Your task to perform on an android device: check data usage Image 0: 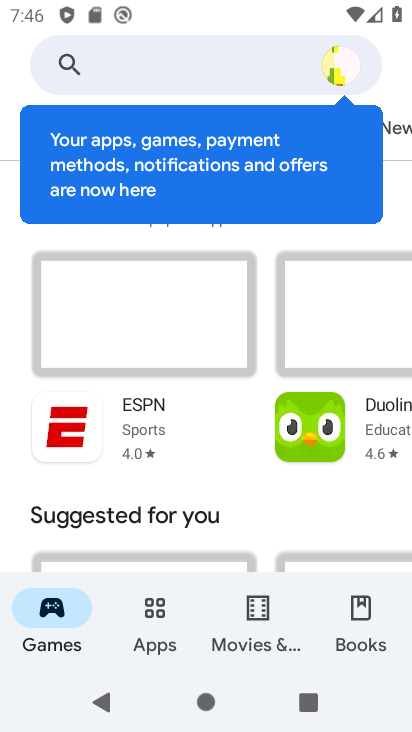
Step 0: press home button
Your task to perform on an android device: check data usage Image 1: 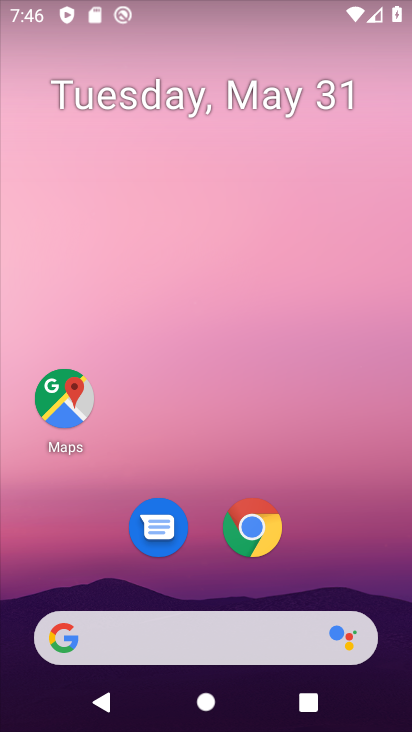
Step 1: drag from (316, 566) to (188, 20)
Your task to perform on an android device: check data usage Image 2: 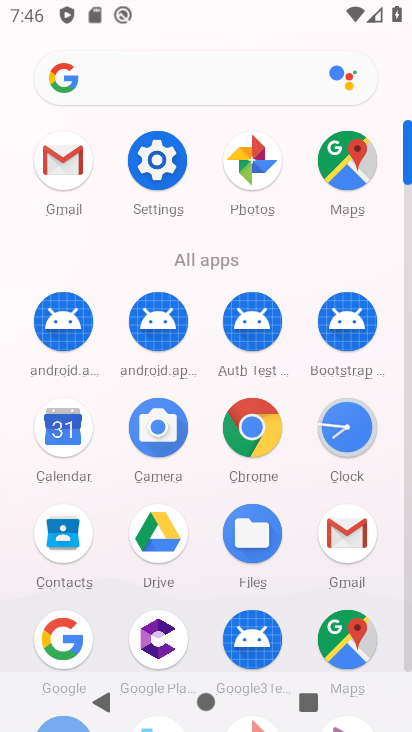
Step 2: click (147, 152)
Your task to perform on an android device: check data usage Image 3: 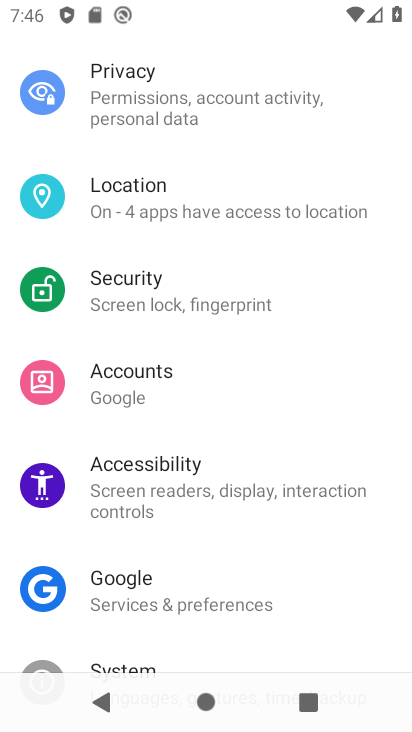
Step 3: drag from (240, 150) to (216, 679)
Your task to perform on an android device: check data usage Image 4: 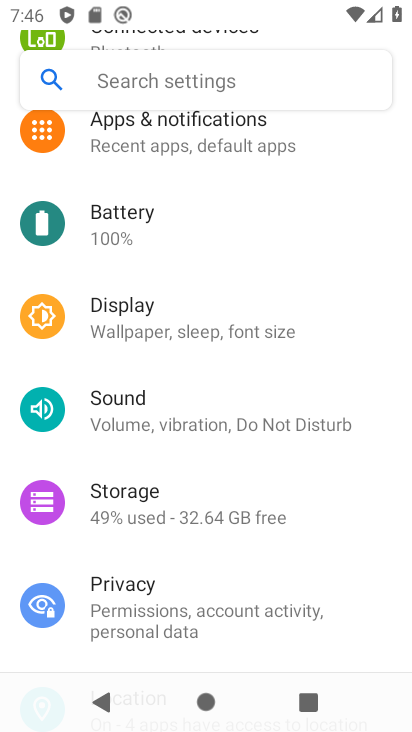
Step 4: drag from (186, 209) to (220, 578)
Your task to perform on an android device: check data usage Image 5: 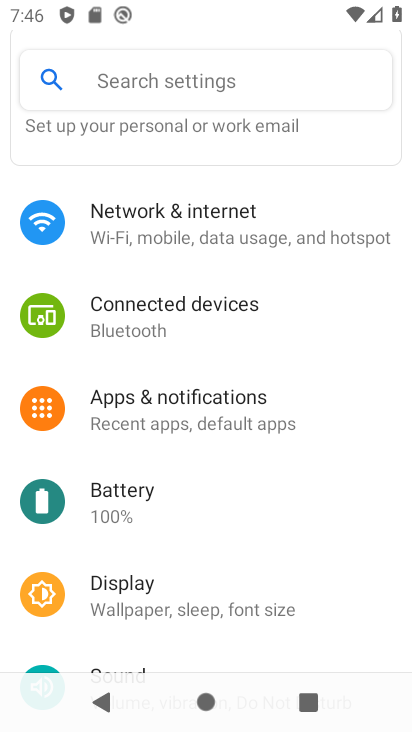
Step 5: click (155, 211)
Your task to perform on an android device: check data usage Image 6: 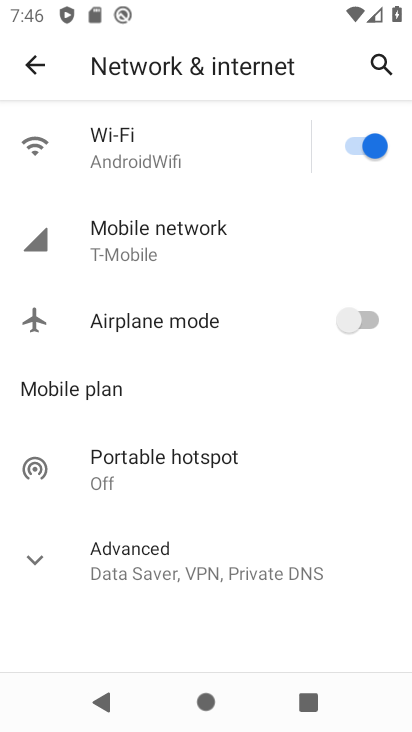
Step 6: click (153, 228)
Your task to perform on an android device: check data usage Image 7: 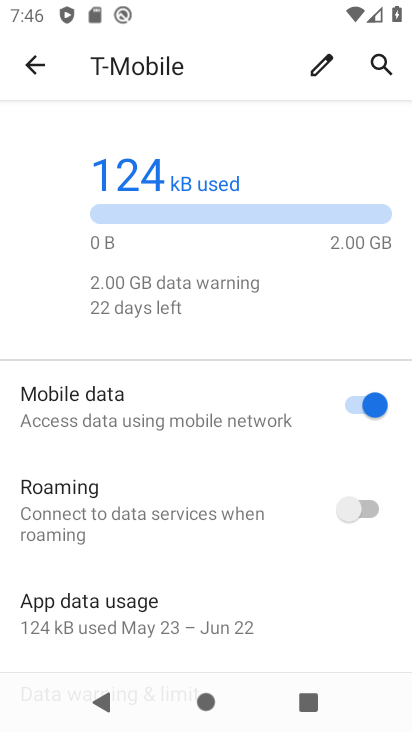
Step 7: task complete